Your task to perform on an android device: Open Google Chrome and click the shortcut for Amazon.com Image 0: 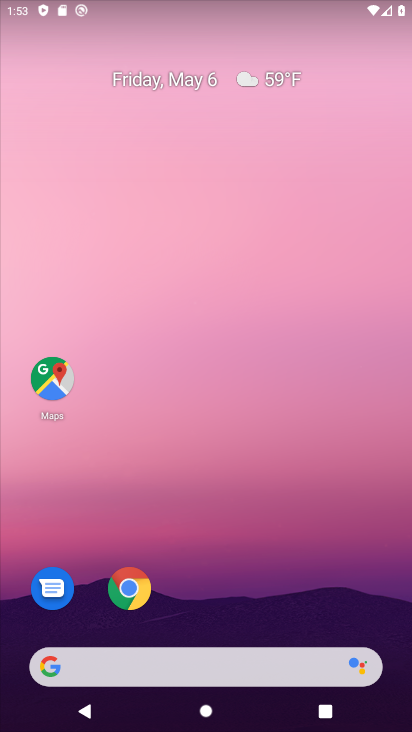
Step 0: click (128, 594)
Your task to perform on an android device: Open Google Chrome and click the shortcut for Amazon.com Image 1: 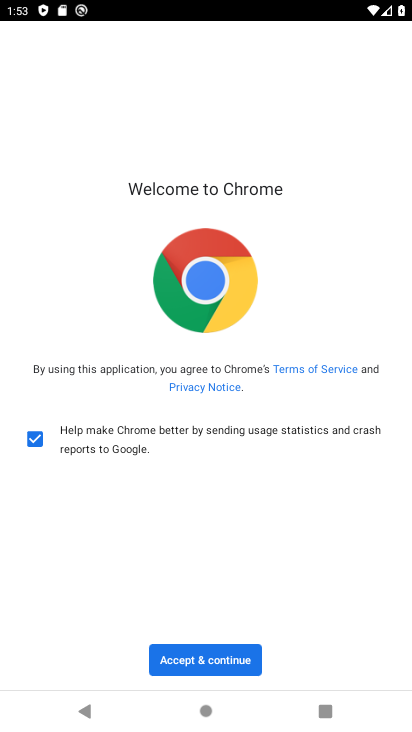
Step 1: click (208, 653)
Your task to perform on an android device: Open Google Chrome and click the shortcut for Amazon.com Image 2: 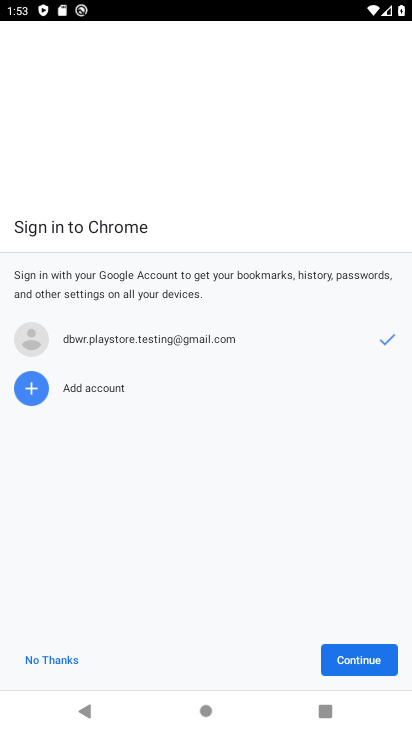
Step 2: click (358, 664)
Your task to perform on an android device: Open Google Chrome and click the shortcut for Amazon.com Image 3: 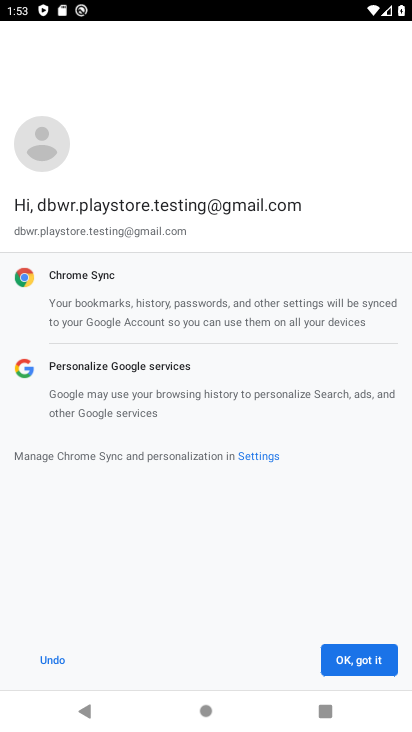
Step 3: click (358, 664)
Your task to perform on an android device: Open Google Chrome and click the shortcut for Amazon.com Image 4: 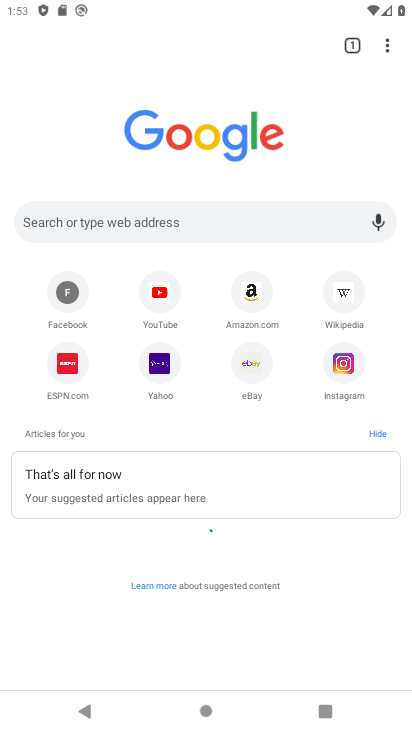
Step 4: click (259, 291)
Your task to perform on an android device: Open Google Chrome and click the shortcut for Amazon.com Image 5: 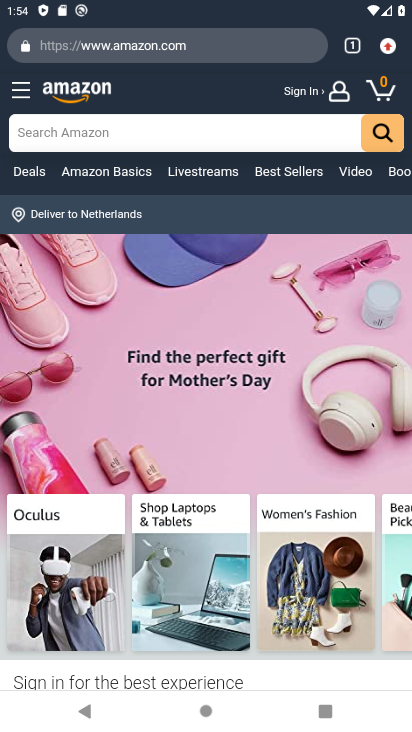
Step 5: task complete